Your task to perform on an android device: Go to Wikipedia Image 0: 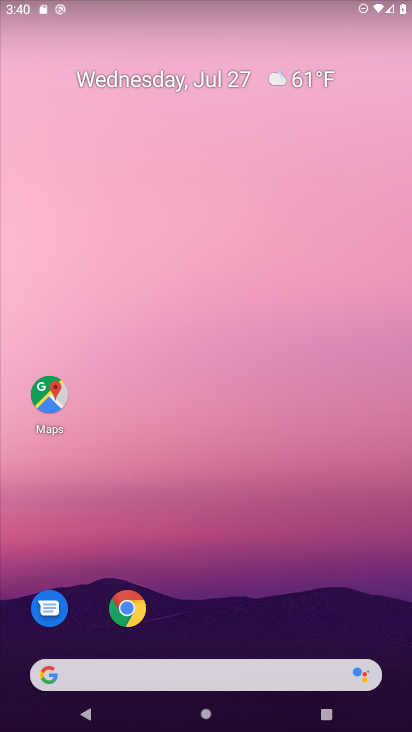
Step 0: click (131, 607)
Your task to perform on an android device: Go to Wikipedia Image 1: 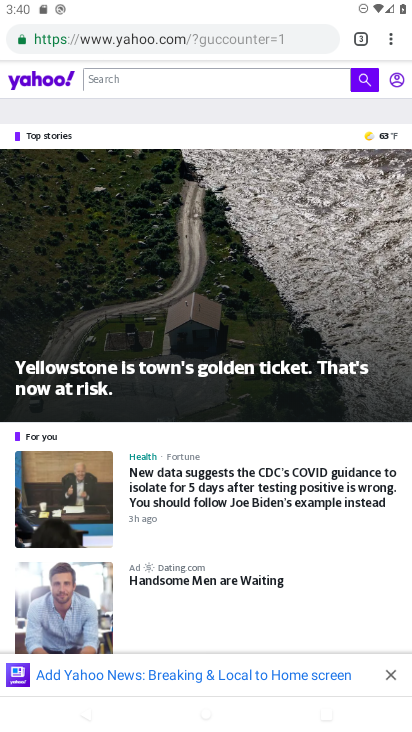
Step 1: click (394, 45)
Your task to perform on an android device: Go to Wikipedia Image 2: 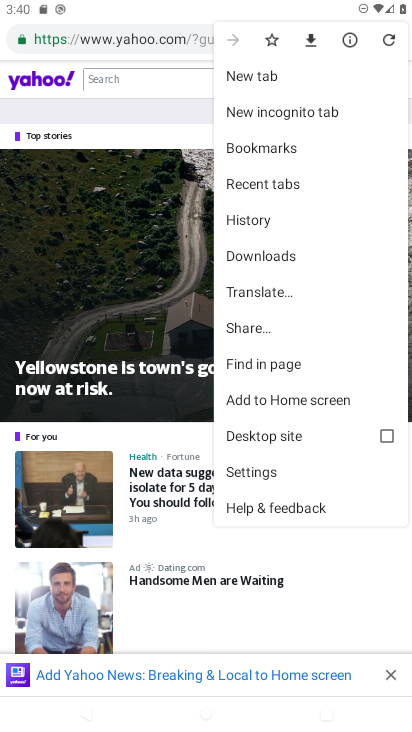
Step 2: click (263, 73)
Your task to perform on an android device: Go to Wikipedia Image 3: 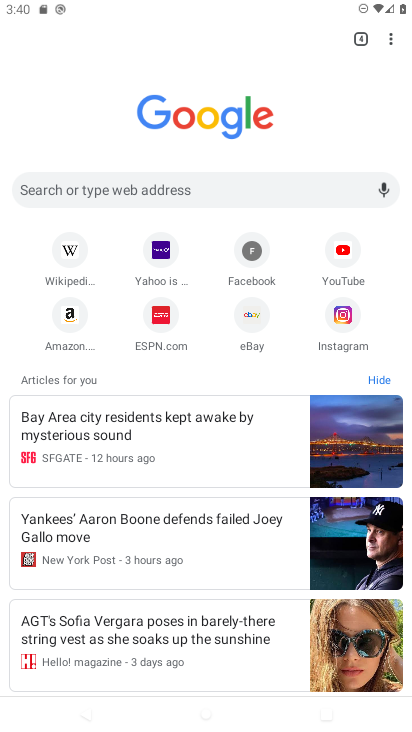
Step 3: click (71, 255)
Your task to perform on an android device: Go to Wikipedia Image 4: 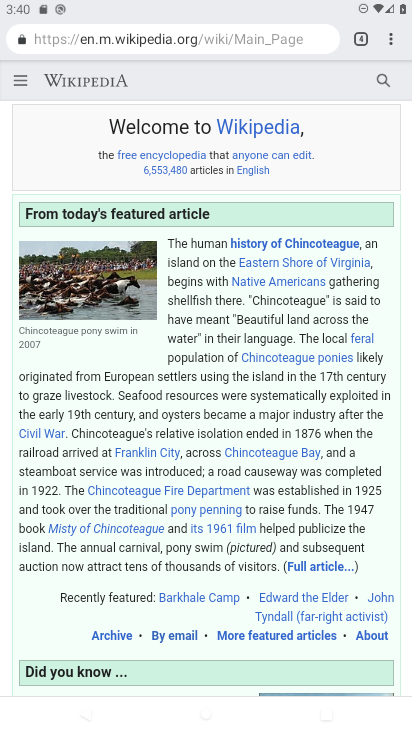
Step 4: task complete